Your task to perform on an android device: What's on my calendar today? Image 0: 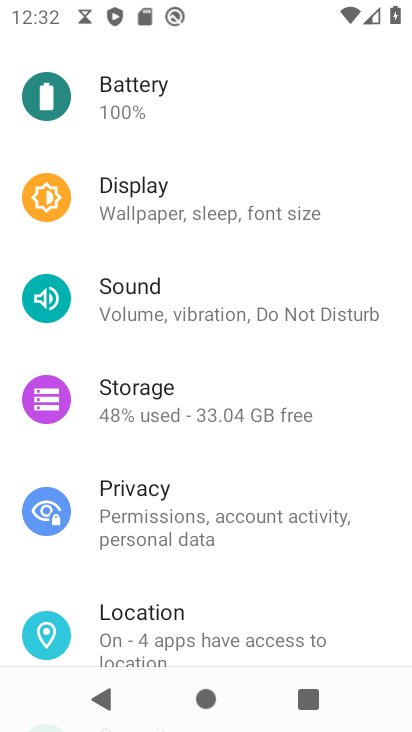
Step 0: press home button
Your task to perform on an android device: What's on my calendar today? Image 1: 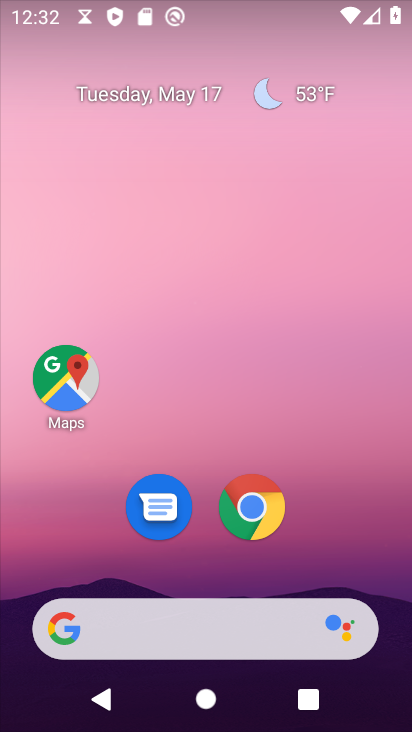
Step 1: drag from (221, 579) to (134, 121)
Your task to perform on an android device: What's on my calendar today? Image 2: 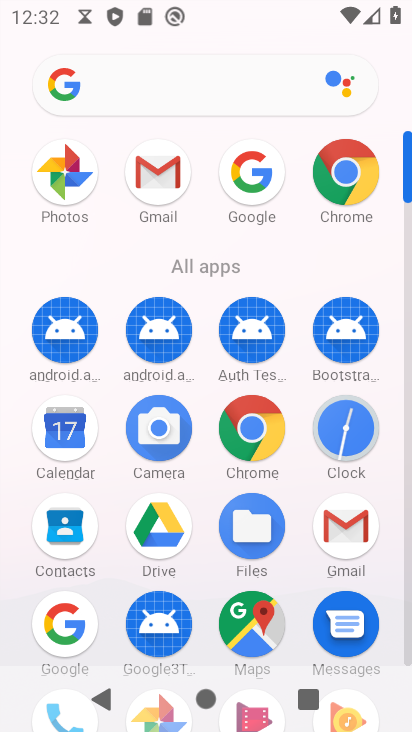
Step 2: click (58, 446)
Your task to perform on an android device: What's on my calendar today? Image 3: 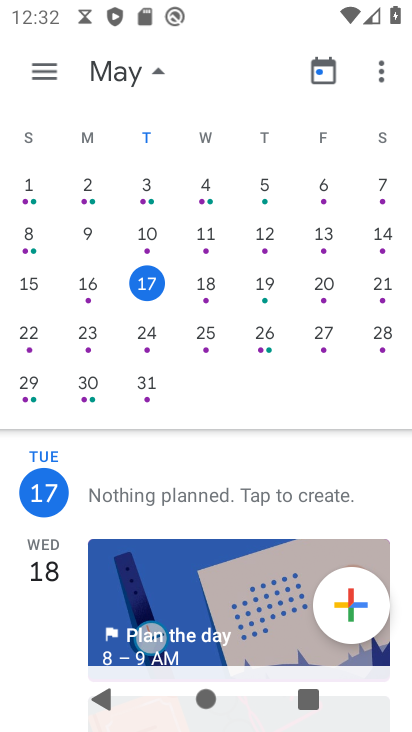
Step 3: click (148, 282)
Your task to perform on an android device: What's on my calendar today? Image 4: 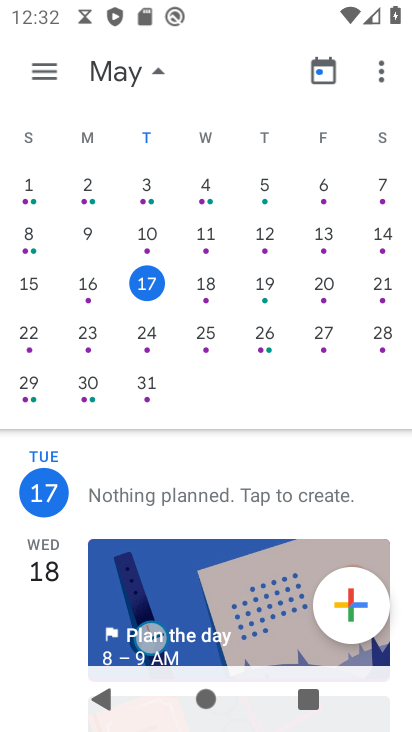
Step 4: click (148, 282)
Your task to perform on an android device: What's on my calendar today? Image 5: 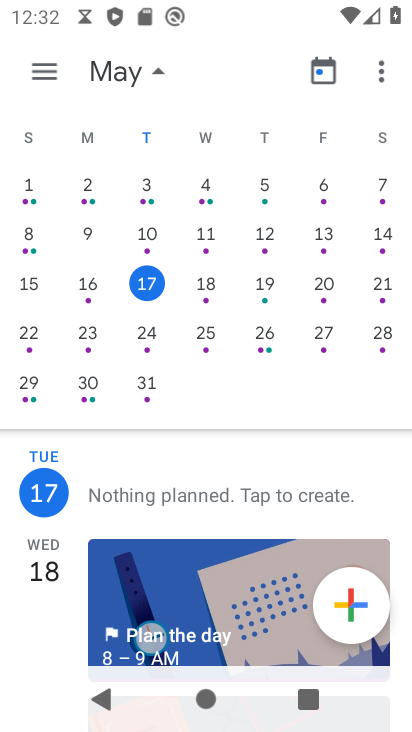
Step 5: task complete